Your task to perform on an android device: Check the news Image 0: 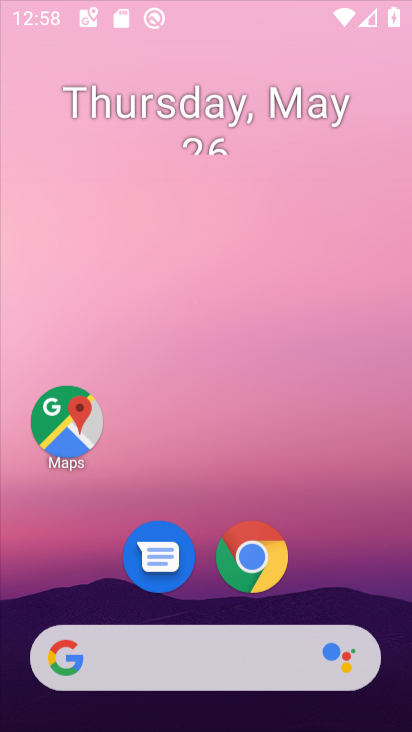
Step 0: press home button
Your task to perform on an android device: Check the news Image 1: 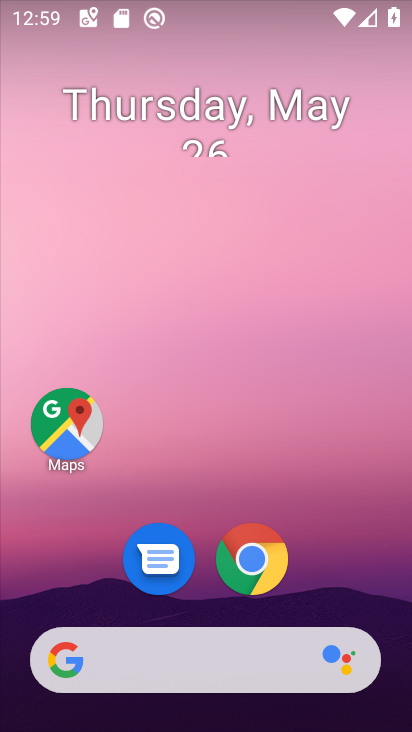
Step 1: click (64, 656)
Your task to perform on an android device: Check the news Image 2: 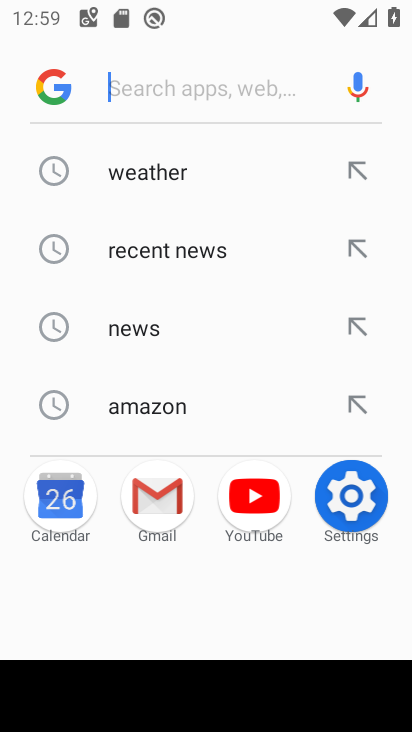
Step 2: click (138, 333)
Your task to perform on an android device: Check the news Image 3: 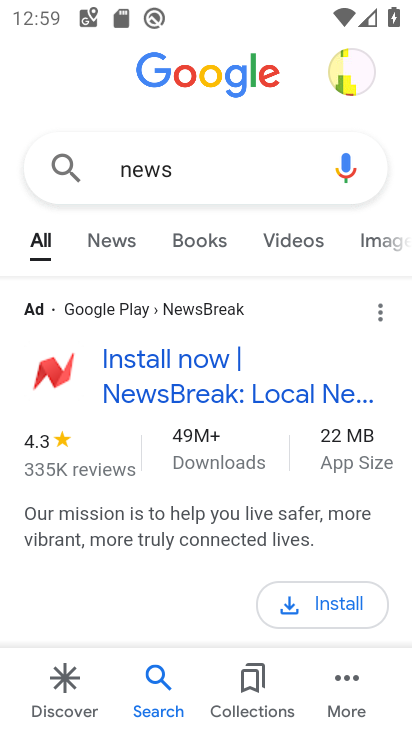
Step 3: task complete